Your task to perform on an android device: turn on bluetooth scan Image 0: 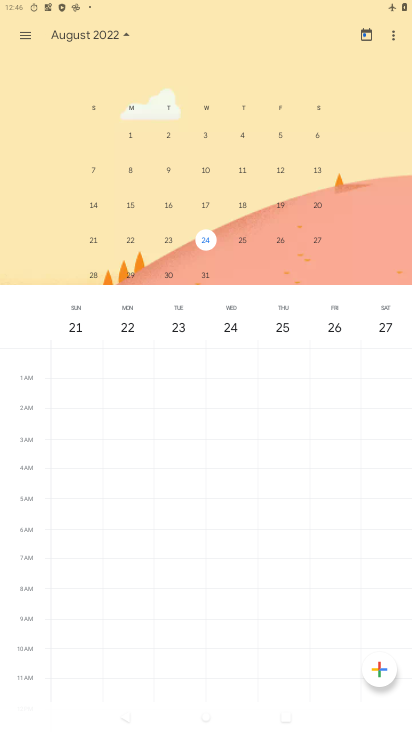
Step 0: press home button
Your task to perform on an android device: turn on bluetooth scan Image 1: 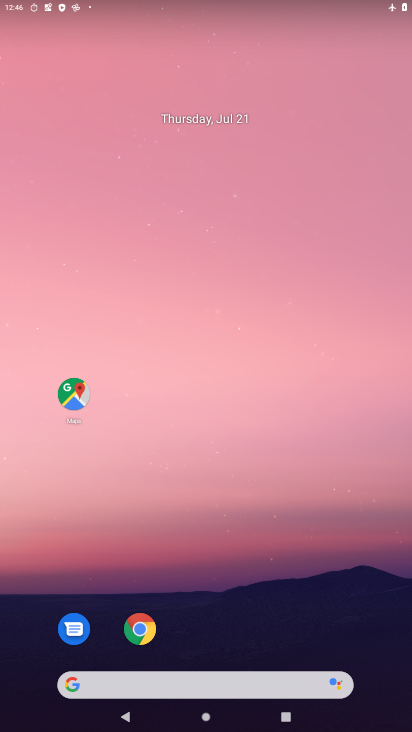
Step 1: drag from (301, 689) to (280, 154)
Your task to perform on an android device: turn on bluetooth scan Image 2: 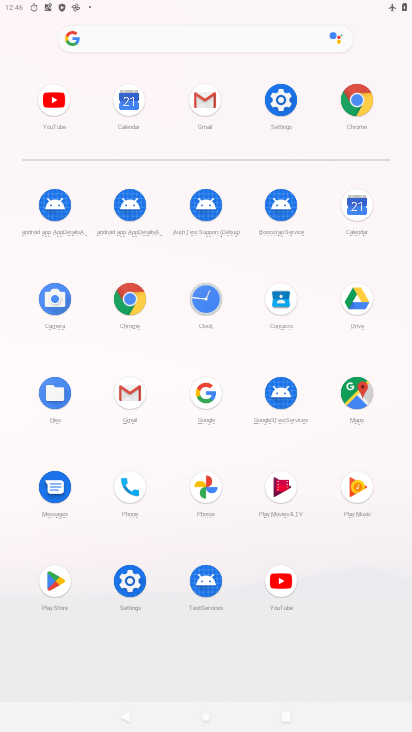
Step 2: click (277, 99)
Your task to perform on an android device: turn on bluetooth scan Image 3: 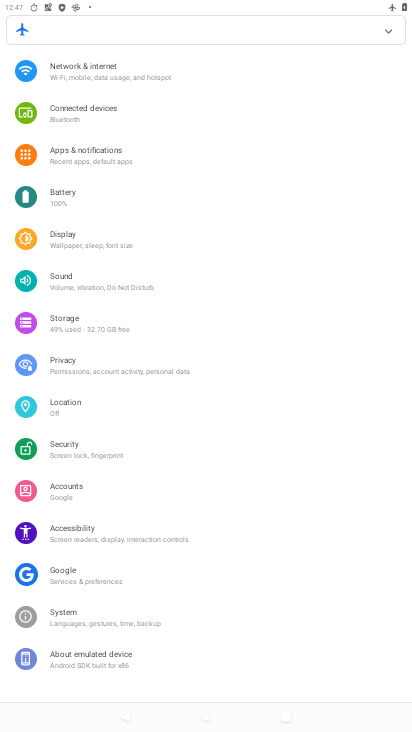
Step 3: click (81, 404)
Your task to perform on an android device: turn on bluetooth scan Image 4: 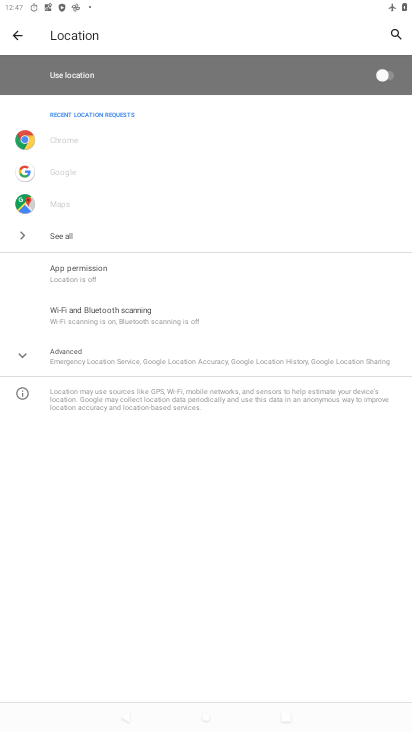
Step 4: click (105, 358)
Your task to perform on an android device: turn on bluetooth scan Image 5: 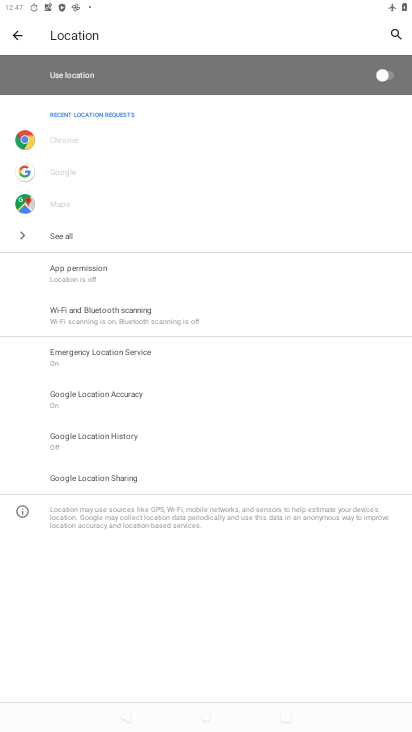
Step 5: click (131, 322)
Your task to perform on an android device: turn on bluetooth scan Image 6: 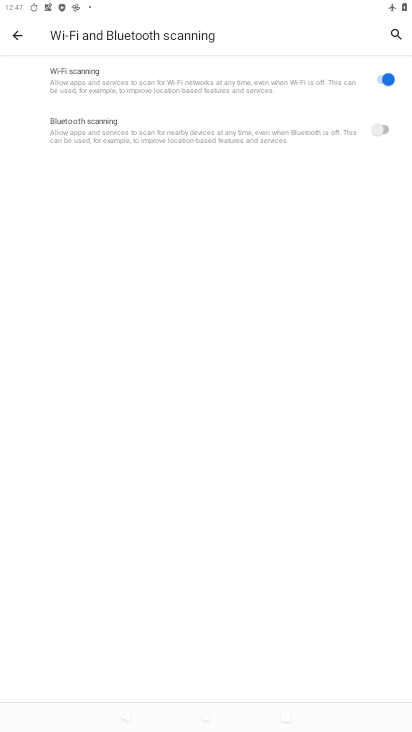
Step 6: click (393, 129)
Your task to perform on an android device: turn on bluetooth scan Image 7: 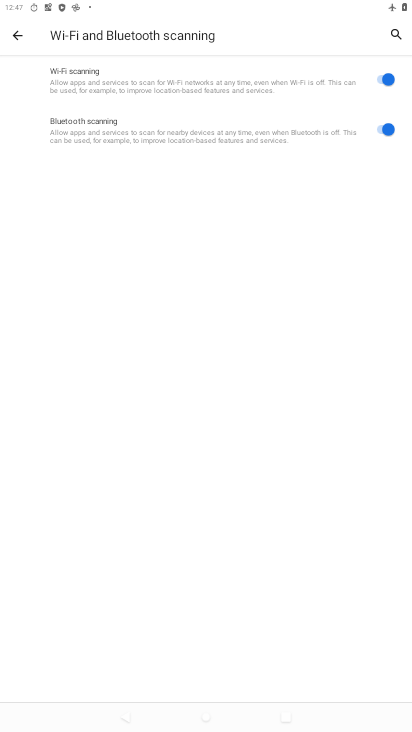
Step 7: task complete